Your task to perform on an android device: Is it going to rain today? Image 0: 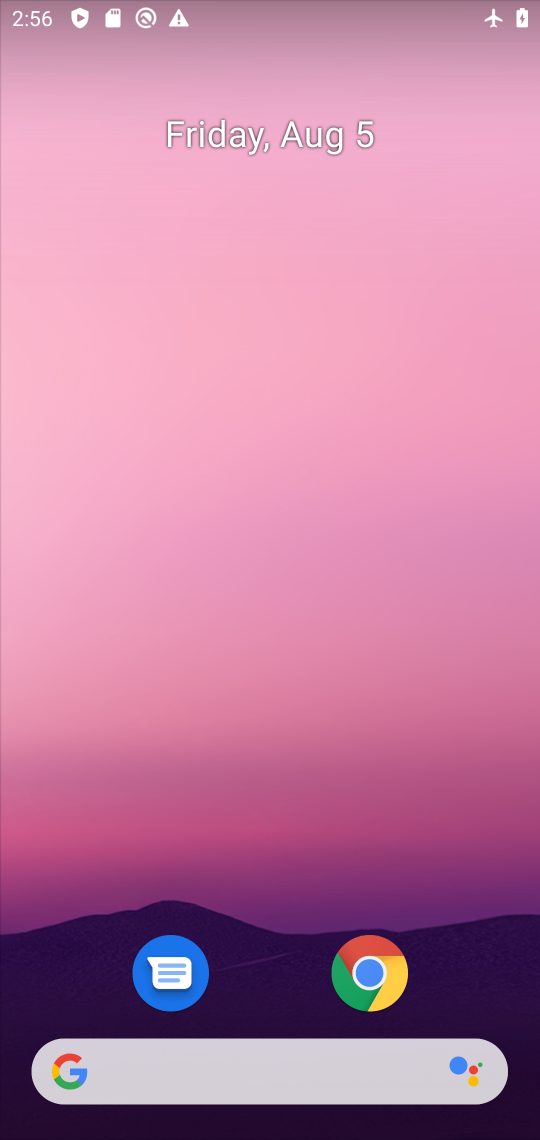
Step 0: click (285, 1057)
Your task to perform on an android device: Is it going to rain today? Image 1: 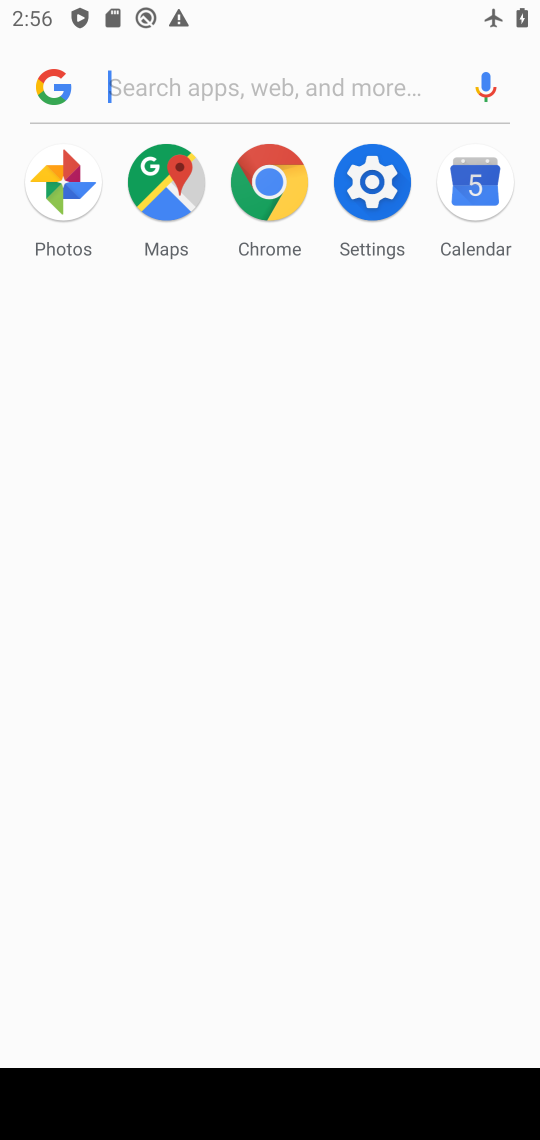
Step 1: type "weather"
Your task to perform on an android device: Is it going to rain today? Image 2: 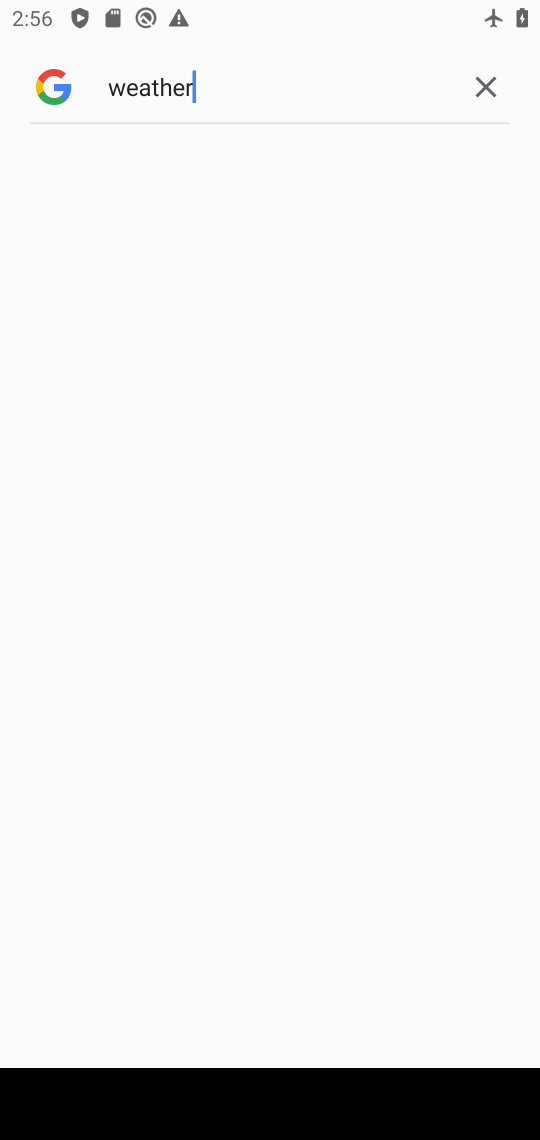
Step 2: type ""
Your task to perform on an android device: Is it going to rain today? Image 3: 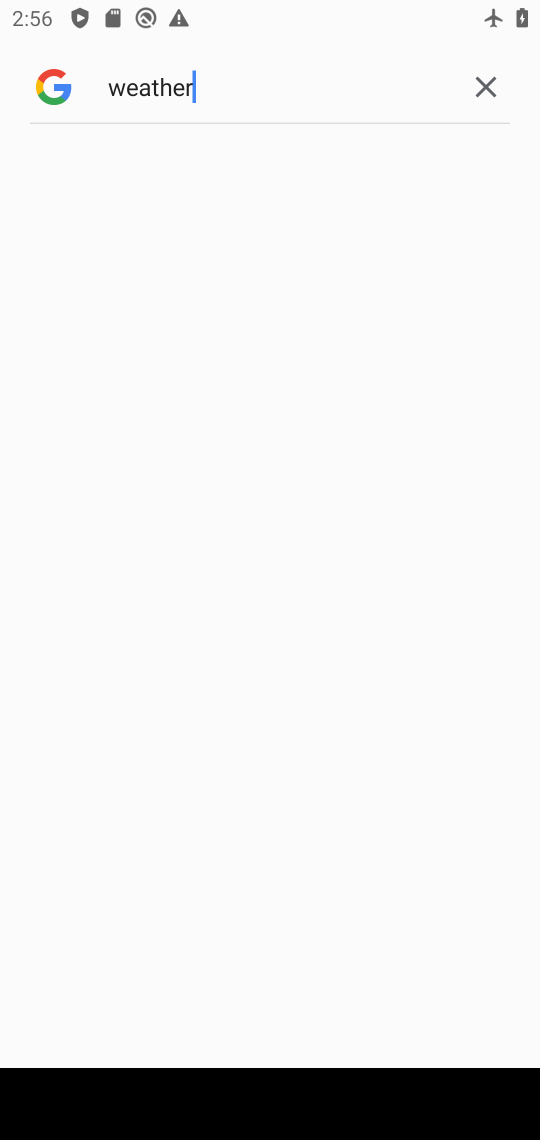
Step 3: task complete